Your task to perform on an android device: uninstall "Adobe Acrobat Reader: Edit PDF" Image 0: 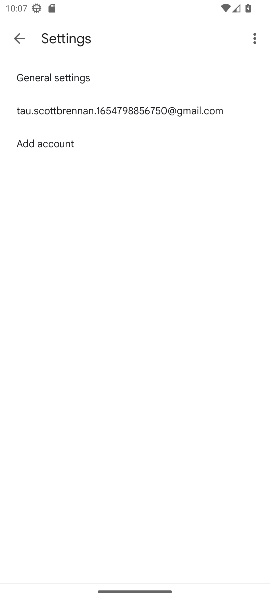
Step 0: press enter
Your task to perform on an android device: uninstall "Adobe Acrobat Reader: Edit PDF" Image 1: 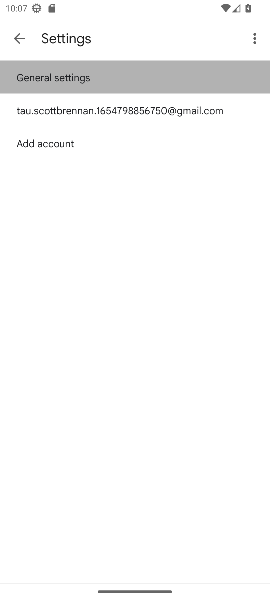
Step 1: click (20, 35)
Your task to perform on an android device: uninstall "Adobe Acrobat Reader: Edit PDF" Image 2: 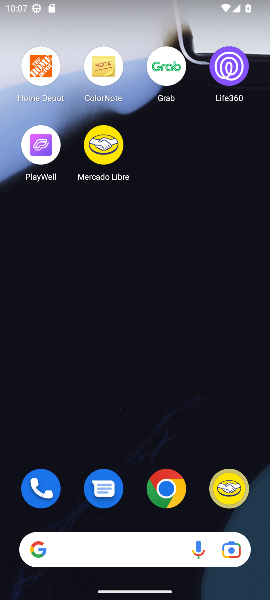
Step 2: drag from (103, 295) to (204, 0)
Your task to perform on an android device: uninstall "Adobe Acrobat Reader: Edit PDF" Image 3: 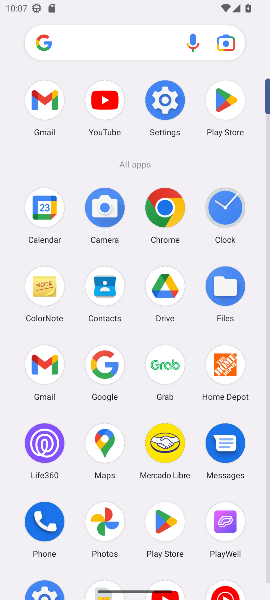
Step 3: click (231, 98)
Your task to perform on an android device: uninstall "Adobe Acrobat Reader: Edit PDF" Image 4: 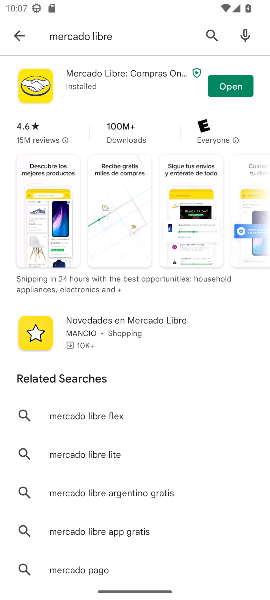
Step 4: click (16, 32)
Your task to perform on an android device: uninstall "Adobe Acrobat Reader: Edit PDF" Image 5: 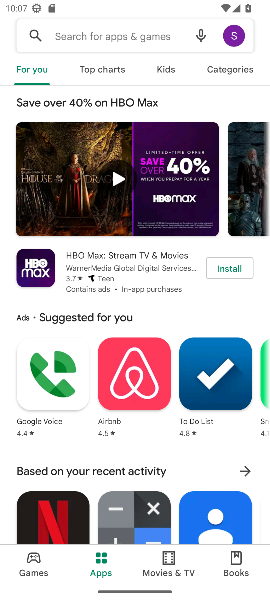
Step 5: click (110, 39)
Your task to perform on an android device: uninstall "Adobe Acrobat Reader: Edit PDF" Image 6: 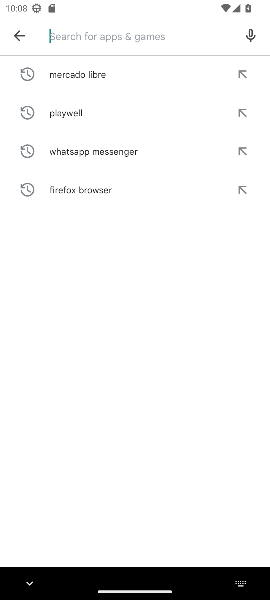
Step 6: type "Adobe Acrobat Reader: Edit PDF"
Your task to perform on an android device: uninstall "Adobe Acrobat Reader: Edit PDF" Image 7: 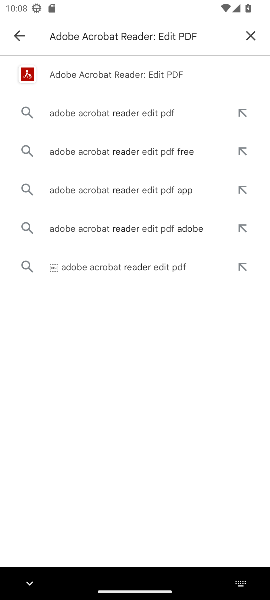
Step 7: click (86, 68)
Your task to perform on an android device: uninstall "Adobe Acrobat Reader: Edit PDF" Image 8: 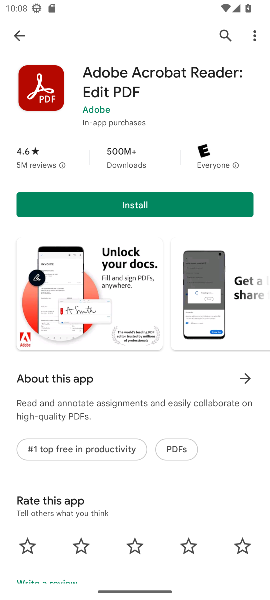
Step 8: task complete